Your task to perform on an android device: turn off sleep mode Image 0: 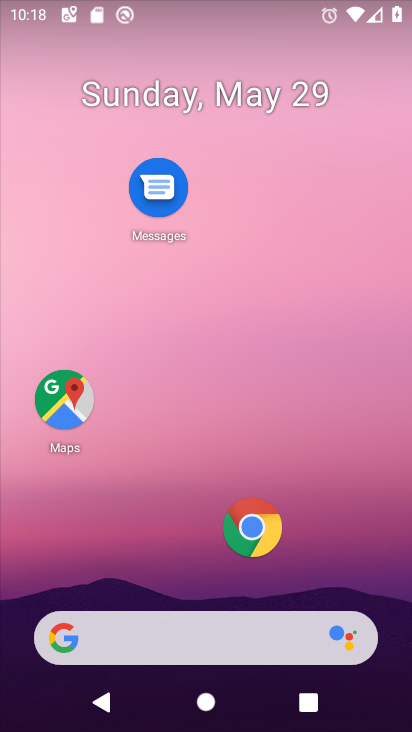
Step 0: press home button
Your task to perform on an android device: turn off sleep mode Image 1: 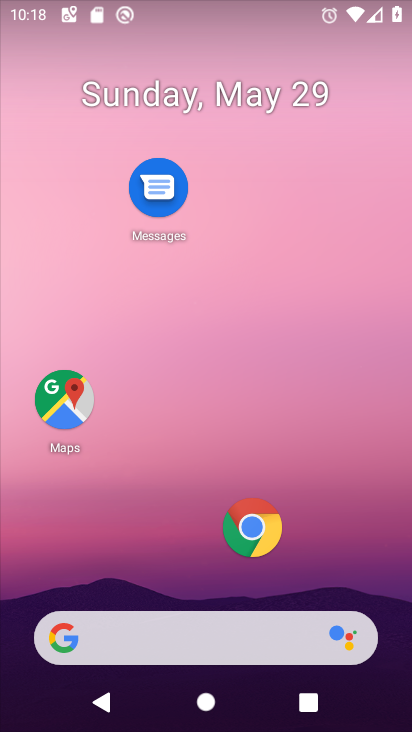
Step 1: drag from (231, 342) to (252, 30)
Your task to perform on an android device: turn off sleep mode Image 2: 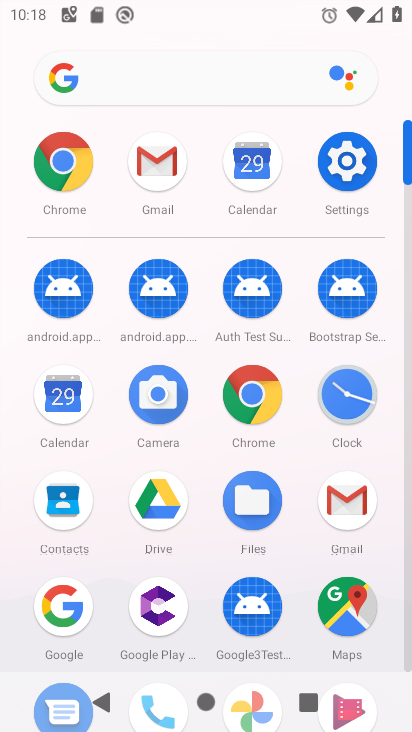
Step 2: click (344, 152)
Your task to perform on an android device: turn off sleep mode Image 3: 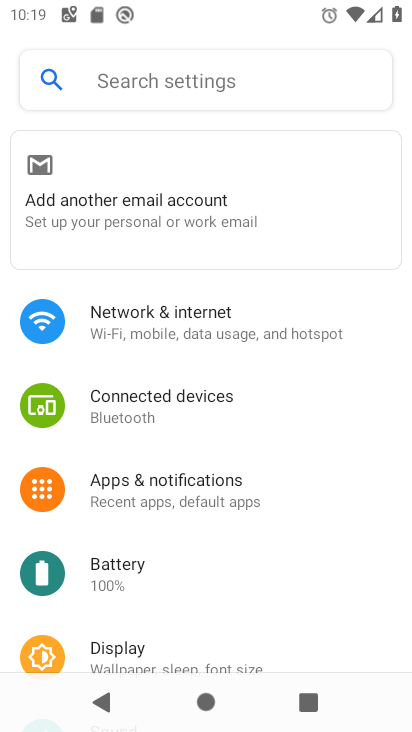
Step 3: click (174, 648)
Your task to perform on an android device: turn off sleep mode Image 4: 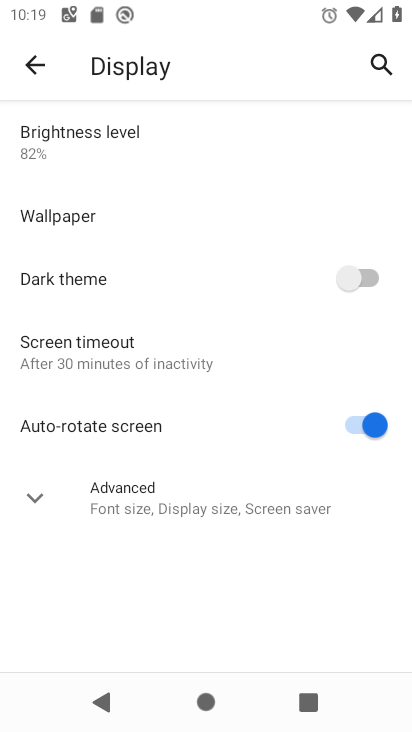
Step 4: click (35, 495)
Your task to perform on an android device: turn off sleep mode Image 5: 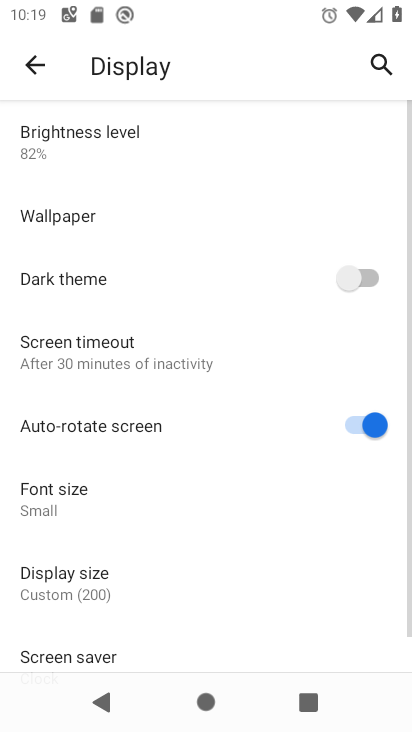
Step 5: task complete